Your task to perform on an android device: Go to notification settings Image 0: 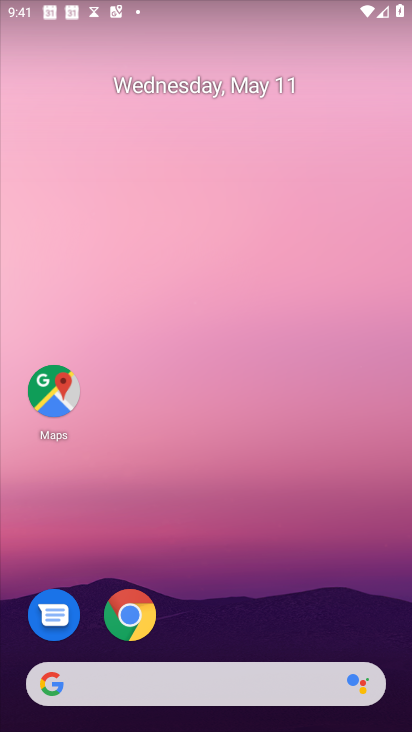
Step 0: press home button
Your task to perform on an android device: Go to notification settings Image 1: 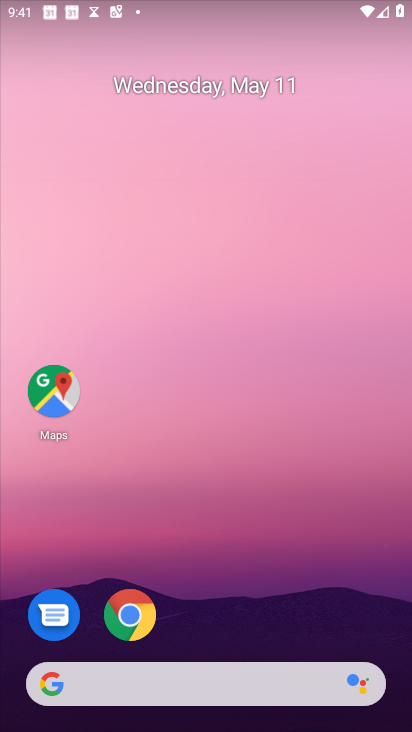
Step 1: drag from (48, 472) to (253, 122)
Your task to perform on an android device: Go to notification settings Image 2: 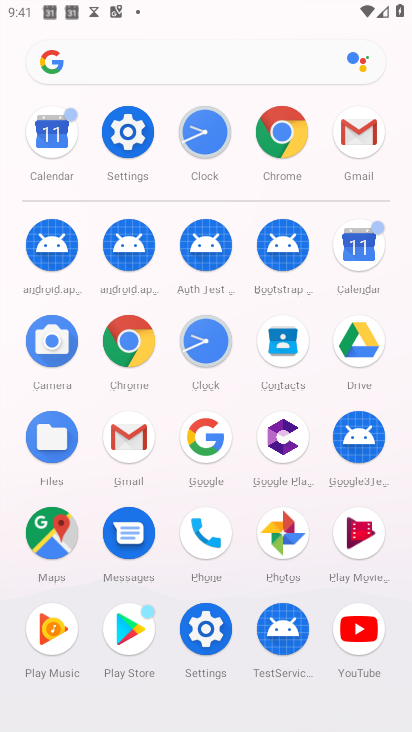
Step 2: click (136, 135)
Your task to perform on an android device: Go to notification settings Image 3: 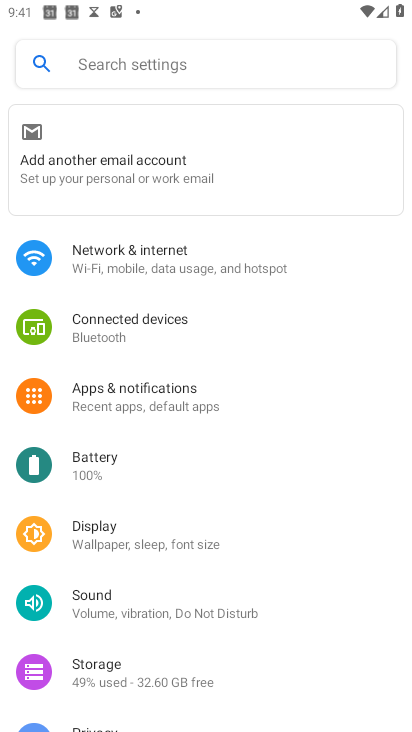
Step 3: click (134, 419)
Your task to perform on an android device: Go to notification settings Image 4: 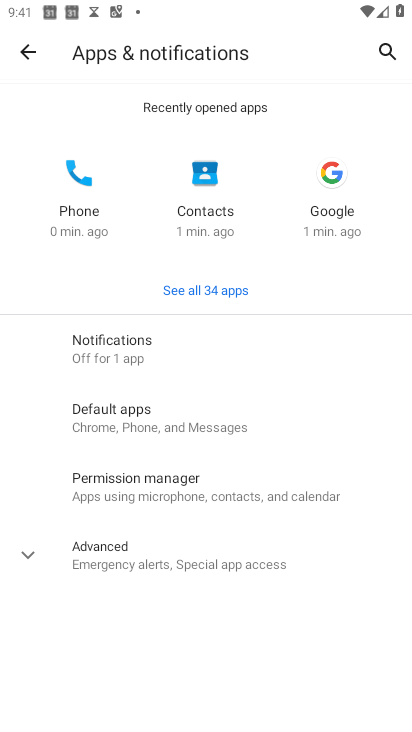
Step 4: click (145, 366)
Your task to perform on an android device: Go to notification settings Image 5: 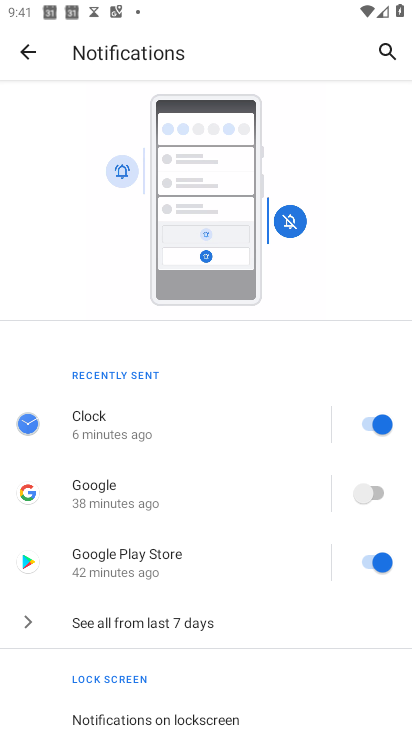
Step 5: task complete